Your task to perform on an android device: Search for seafood restaurants on Google Maps Image 0: 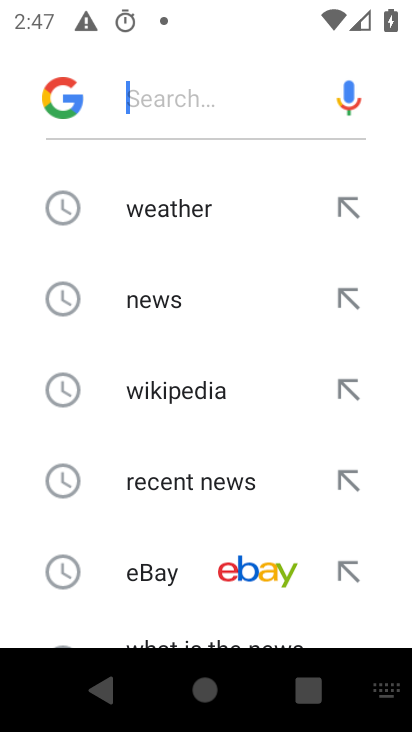
Step 0: click (336, 207)
Your task to perform on an android device: Search for seafood restaurants on Google Maps Image 1: 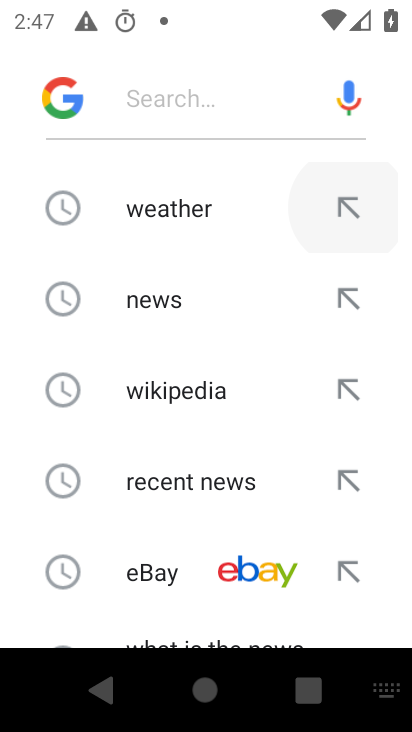
Step 1: click (335, 206)
Your task to perform on an android device: Search for seafood restaurants on Google Maps Image 2: 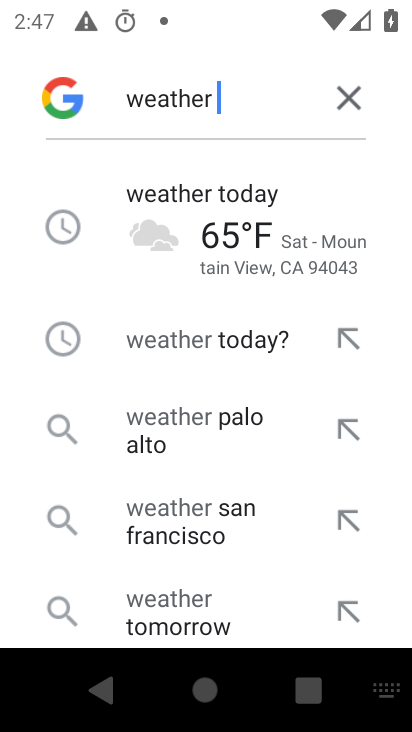
Step 2: click (340, 89)
Your task to perform on an android device: Search for seafood restaurants on Google Maps Image 3: 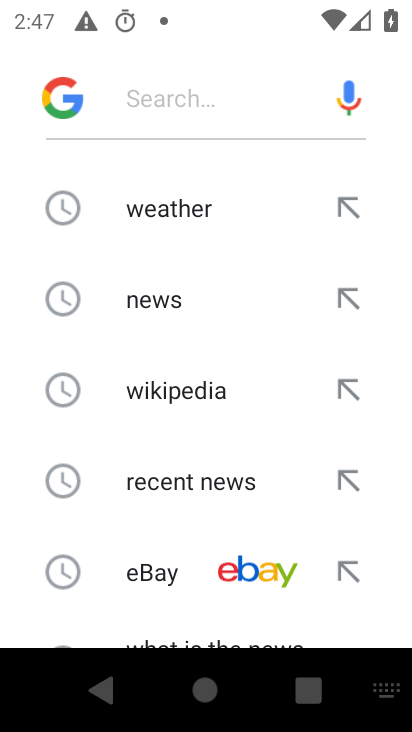
Step 3: press back button
Your task to perform on an android device: Search for seafood restaurants on Google Maps Image 4: 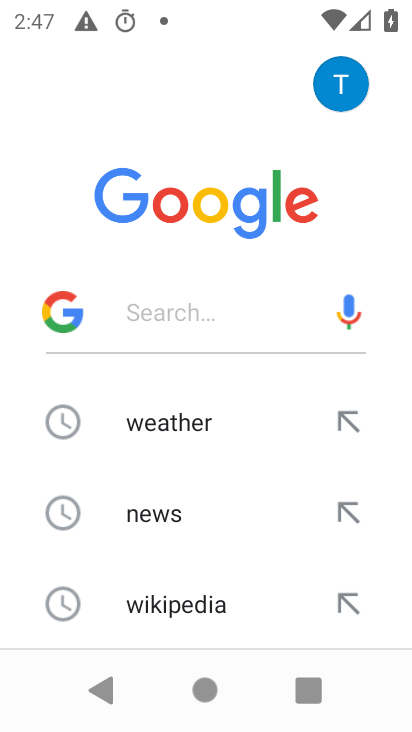
Step 4: press back button
Your task to perform on an android device: Search for seafood restaurants on Google Maps Image 5: 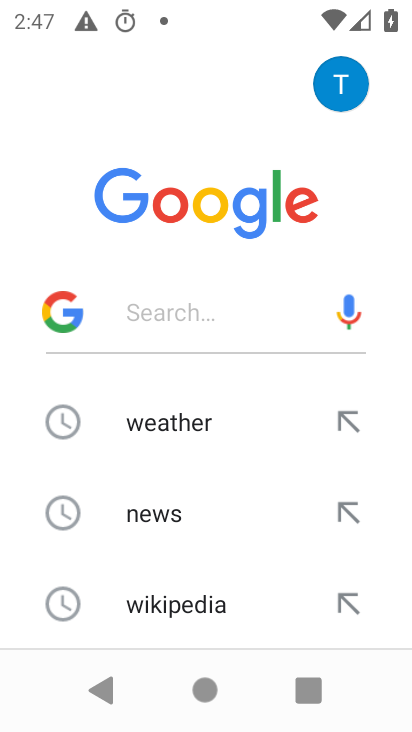
Step 5: press back button
Your task to perform on an android device: Search for seafood restaurants on Google Maps Image 6: 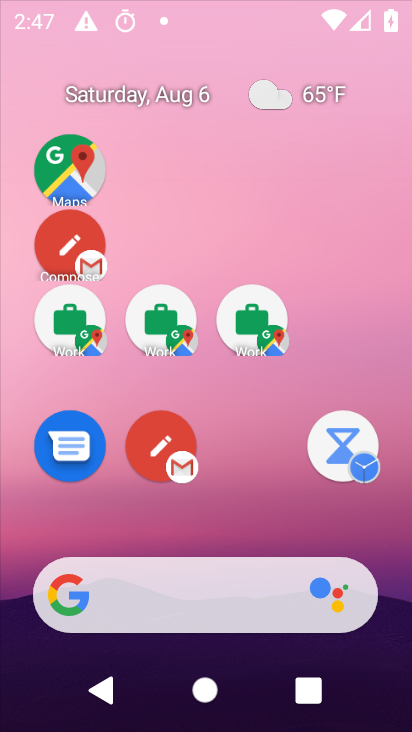
Step 6: press back button
Your task to perform on an android device: Search for seafood restaurants on Google Maps Image 7: 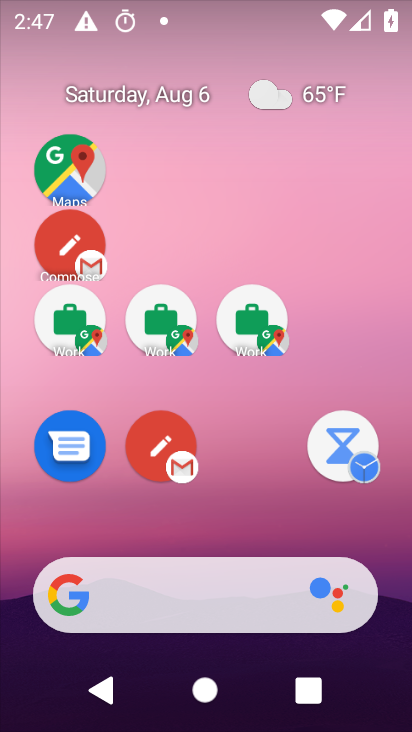
Step 7: drag from (284, 575) to (230, 239)
Your task to perform on an android device: Search for seafood restaurants on Google Maps Image 8: 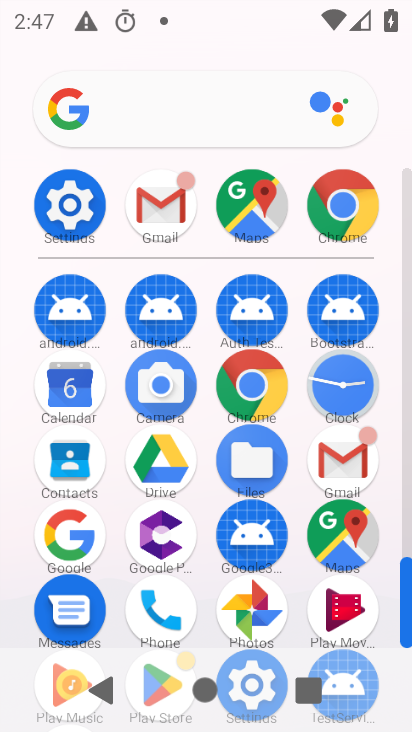
Step 8: drag from (330, 562) to (360, 532)
Your task to perform on an android device: Search for seafood restaurants on Google Maps Image 9: 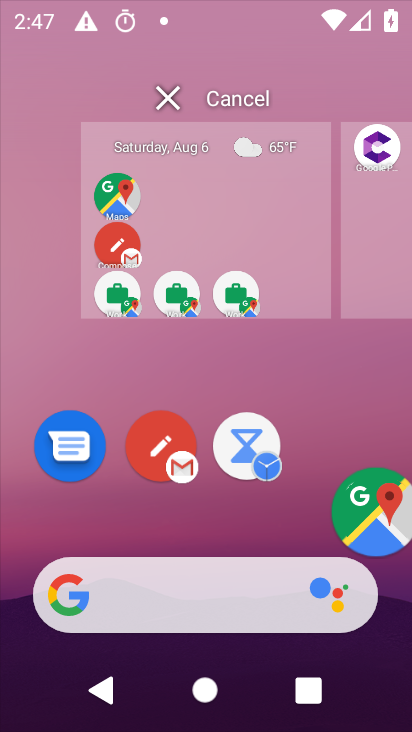
Step 9: click (360, 532)
Your task to perform on an android device: Search for seafood restaurants on Google Maps Image 10: 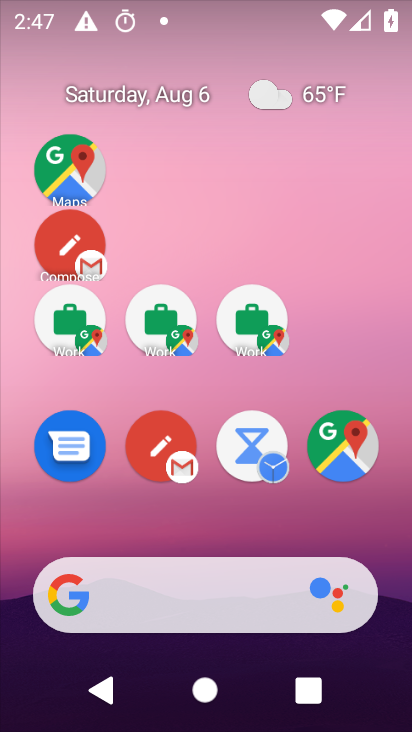
Step 10: click (271, 147)
Your task to perform on an android device: Search for seafood restaurants on Google Maps Image 11: 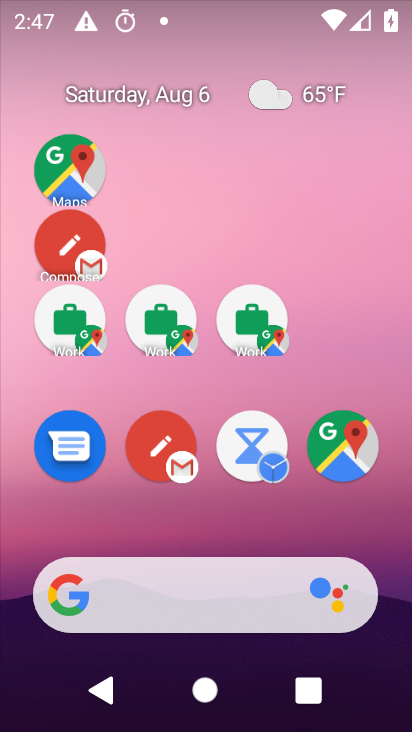
Step 11: click (246, 193)
Your task to perform on an android device: Search for seafood restaurants on Google Maps Image 12: 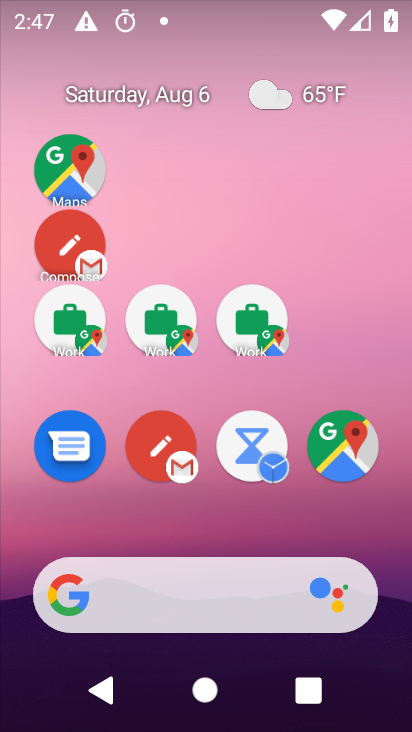
Step 12: drag from (222, 692) to (193, 199)
Your task to perform on an android device: Search for seafood restaurants on Google Maps Image 13: 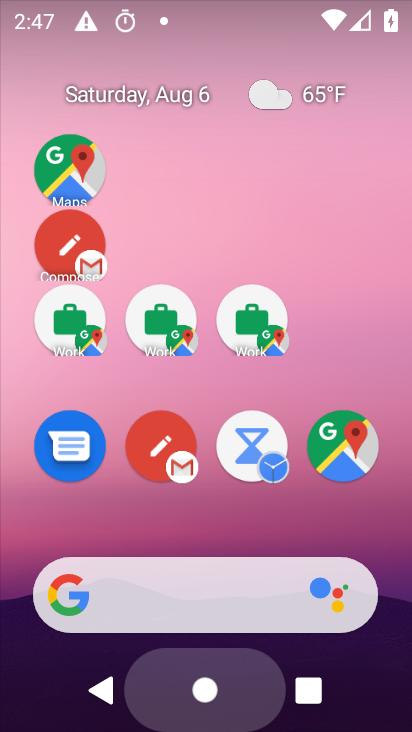
Step 13: drag from (220, 521) to (184, 138)
Your task to perform on an android device: Search for seafood restaurants on Google Maps Image 14: 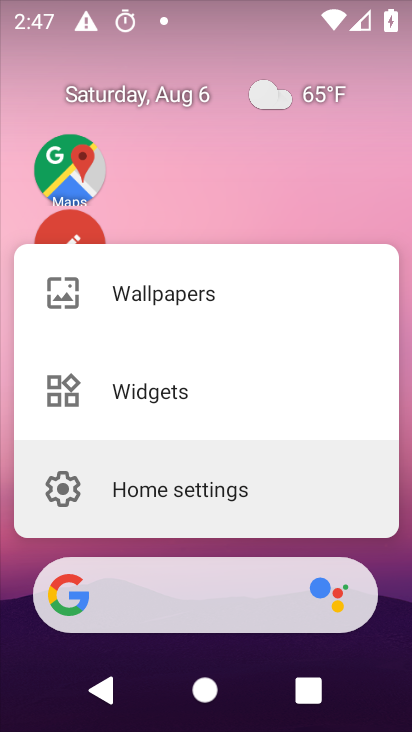
Step 14: drag from (240, 238) to (209, 16)
Your task to perform on an android device: Search for seafood restaurants on Google Maps Image 15: 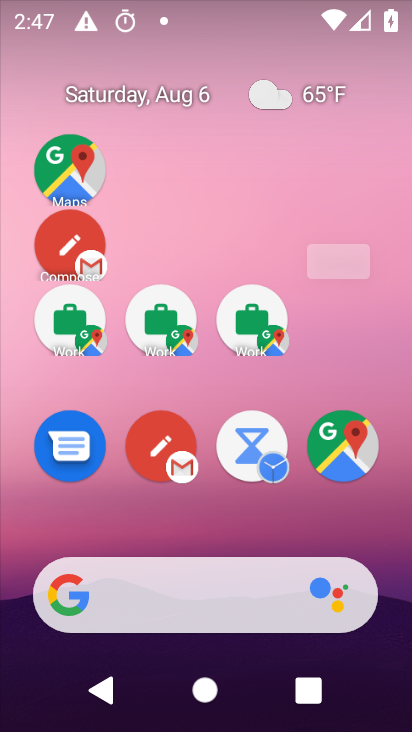
Step 15: click (250, 159)
Your task to perform on an android device: Search for seafood restaurants on Google Maps Image 16: 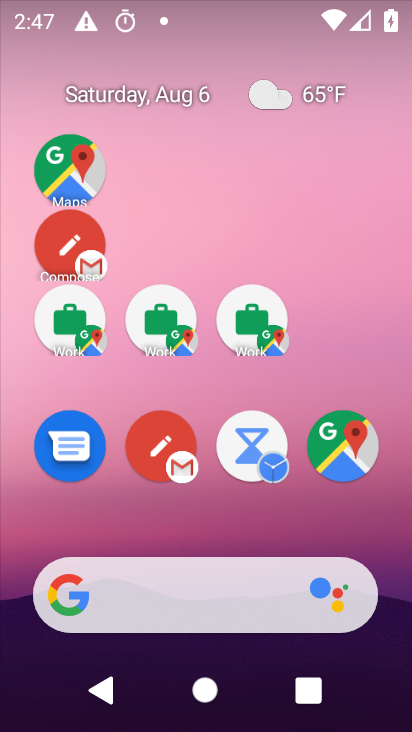
Step 16: drag from (253, 307) to (185, 89)
Your task to perform on an android device: Search for seafood restaurants on Google Maps Image 17: 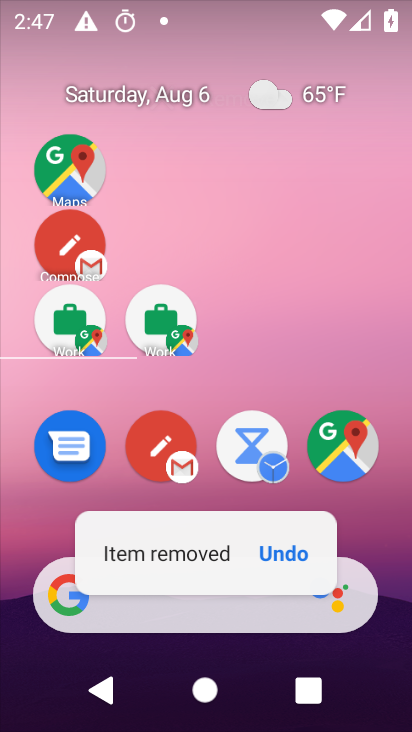
Step 17: click (346, 452)
Your task to perform on an android device: Search for seafood restaurants on Google Maps Image 18: 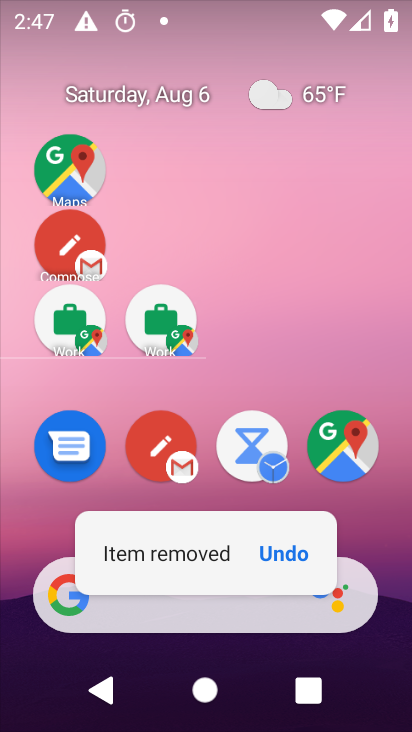
Step 18: click (344, 452)
Your task to perform on an android device: Search for seafood restaurants on Google Maps Image 19: 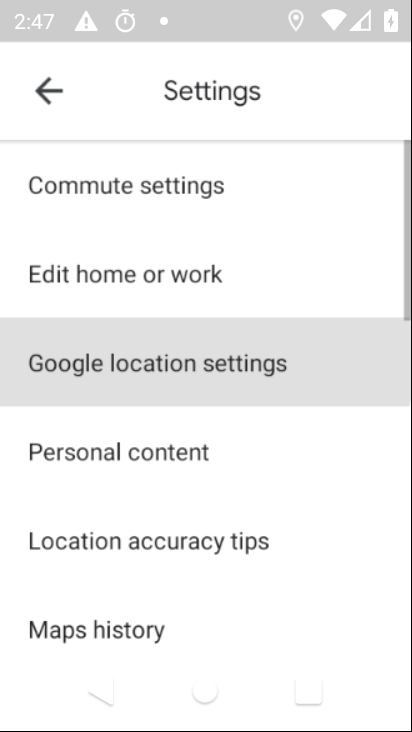
Step 19: click (344, 453)
Your task to perform on an android device: Search for seafood restaurants on Google Maps Image 20: 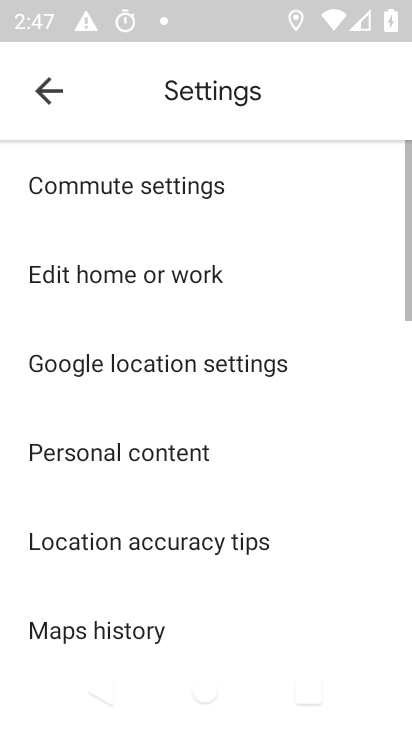
Step 20: click (49, 91)
Your task to perform on an android device: Search for seafood restaurants on Google Maps Image 21: 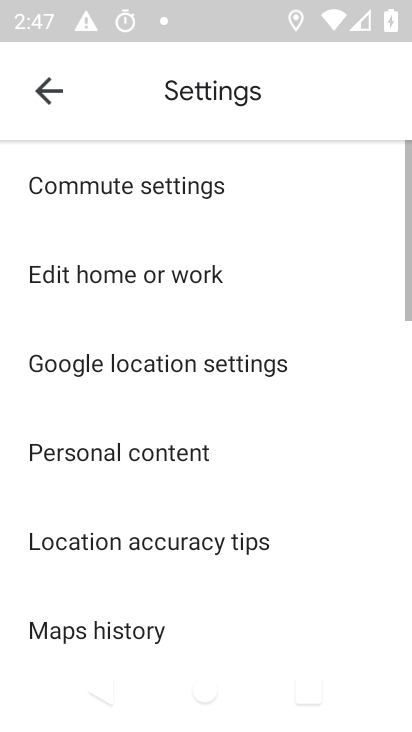
Step 21: click (49, 91)
Your task to perform on an android device: Search for seafood restaurants on Google Maps Image 22: 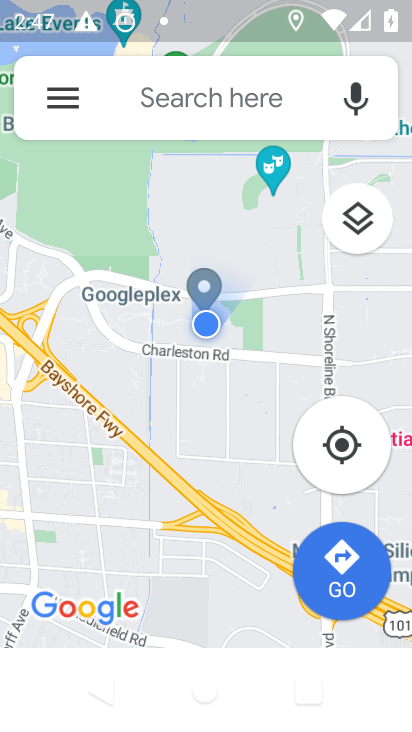
Step 22: click (141, 104)
Your task to perform on an android device: Search for seafood restaurants on Google Maps Image 23: 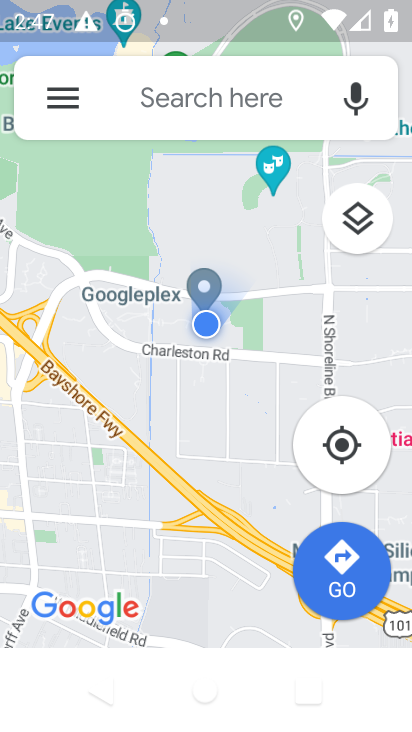
Step 23: click (141, 104)
Your task to perform on an android device: Search for seafood restaurants on Google Maps Image 24: 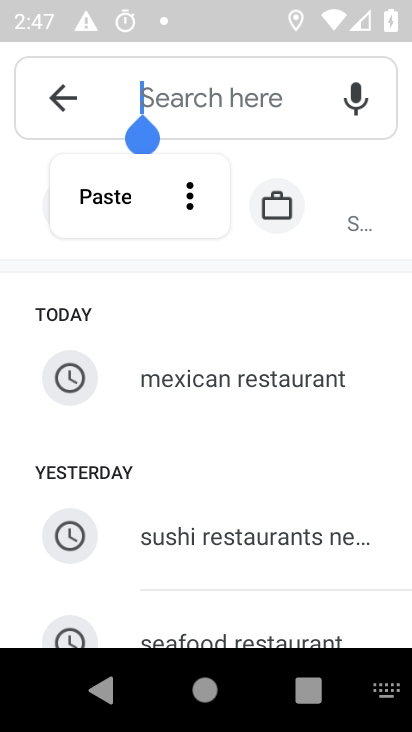
Step 24: click (230, 632)
Your task to perform on an android device: Search for seafood restaurants on Google Maps Image 25: 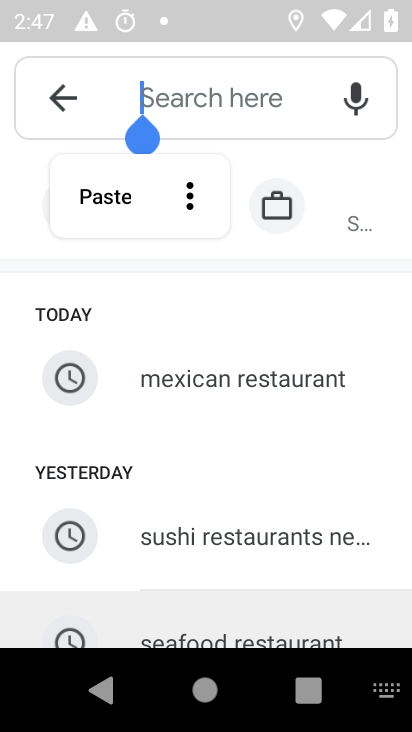
Step 25: click (237, 628)
Your task to perform on an android device: Search for seafood restaurants on Google Maps Image 26: 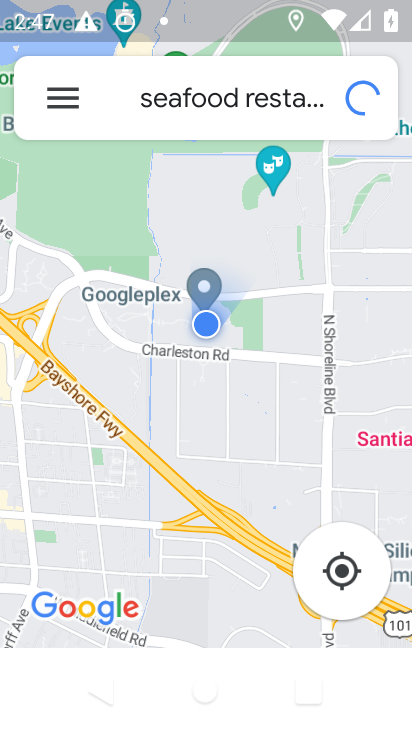
Step 26: task complete